Your task to perform on an android device: Open network settings Image 0: 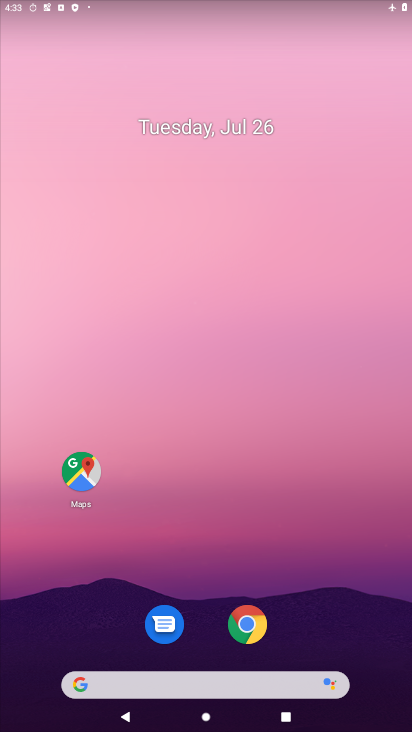
Step 0: click (285, 698)
Your task to perform on an android device: Open network settings Image 1: 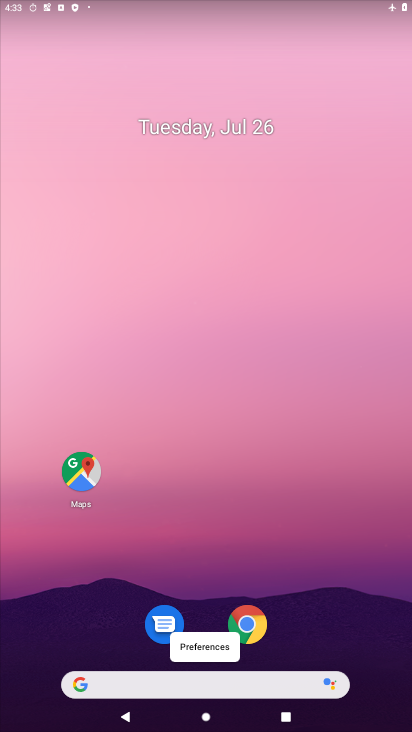
Step 1: press home button
Your task to perform on an android device: Open network settings Image 2: 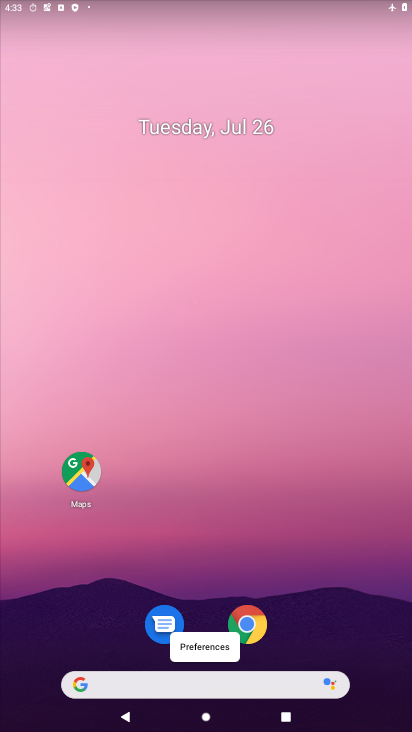
Step 2: drag from (285, 698) to (400, 588)
Your task to perform on an android device: Open network settings Image 3: 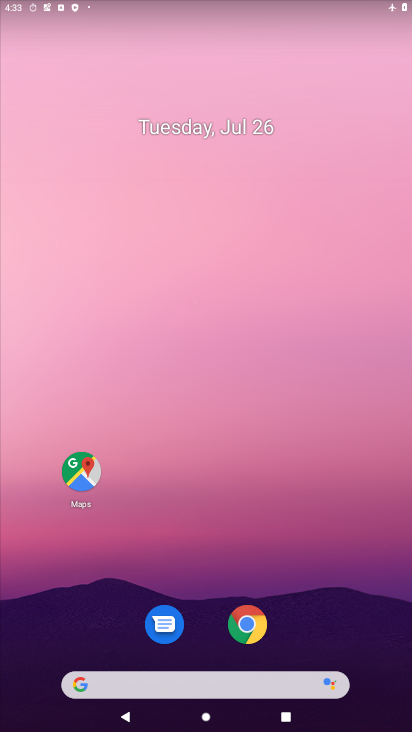
Step 3: drag from (273, 671) to (298, 33)
Your task to perform on an android device: Open network settings Image 4: 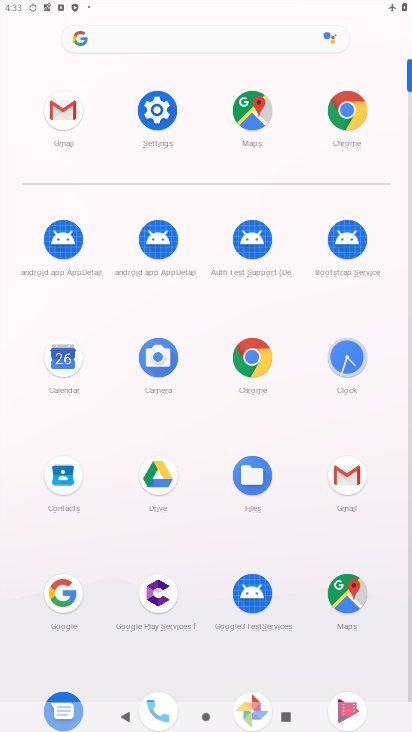
Step 4: click (152, 121)
Your task to perform on an android device: Open network settings Image 5: 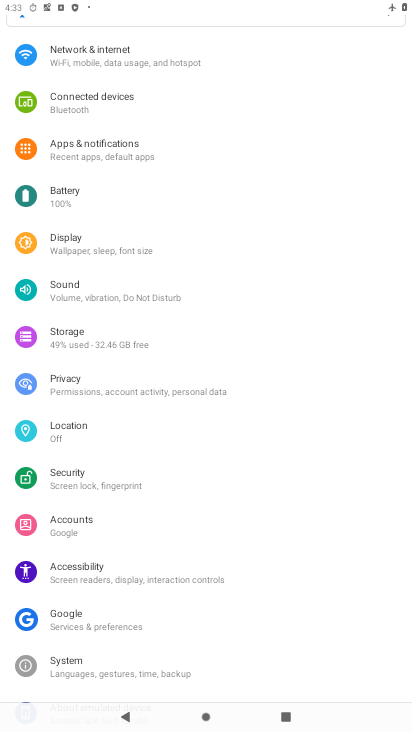
Step 5: click (142, 56)
Your task to perform on an android device: Open network settings Image 6: 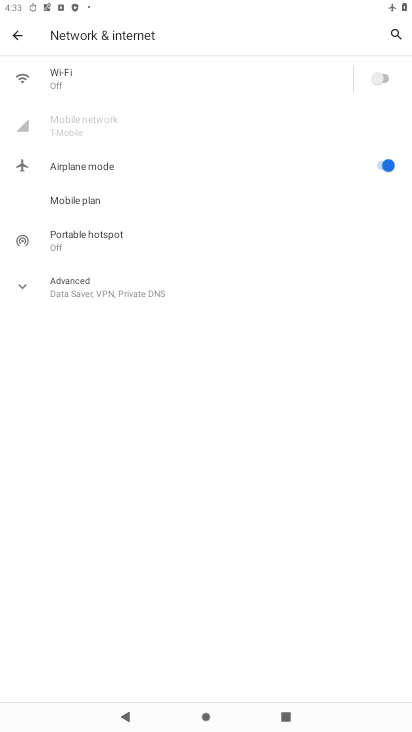
Step 6: task complete